Your task to perform on an android device: Show me productivity apps on the Play Store Image 0: 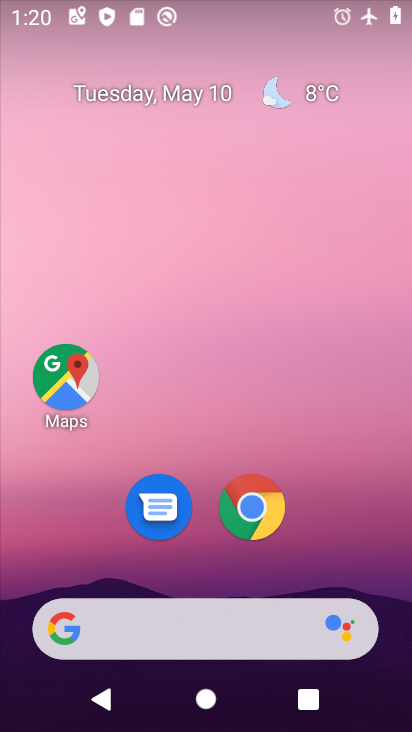
Step 0: drag from (226, 715) to (217, 119)
Your task to perform on an android device: Show me productivity apps on the Play Store Image 1: 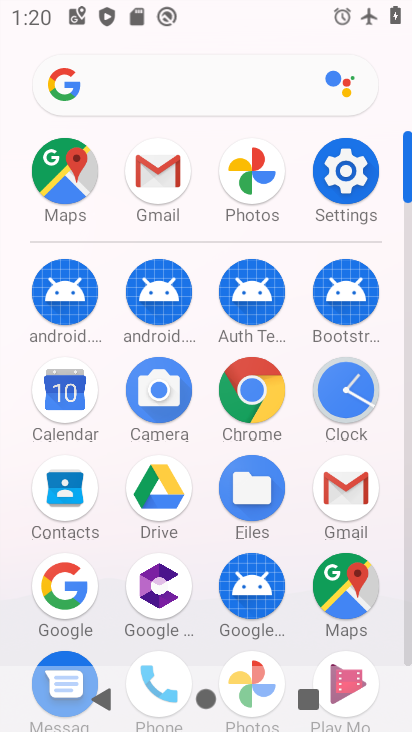
Step 1: drag from (194, 638) to (200, 206)
Your task to perform on an android device: Show me productivity apps on the Play Store Image 2: 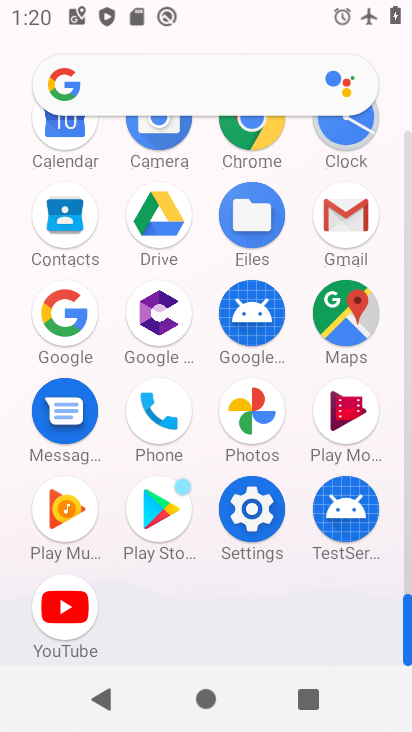
Step 2: click (162, 511)
Your task to perform on an android device: Show me productivity apps on the Play Store Image 3: 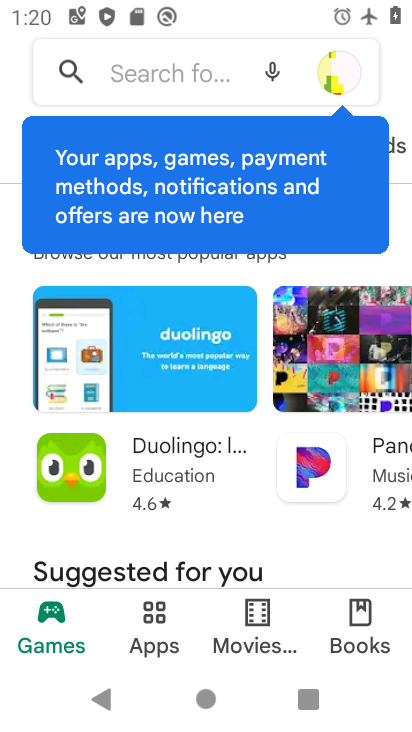
Step 3: click (155, 625)
Your task to perform on an android device: Show me productivity apps on the Play Store Image 4: 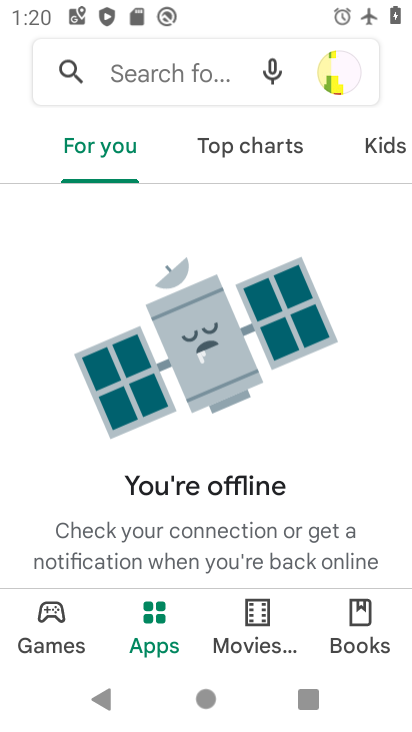
Step 4: drag from (380, 147) to (161, 156)
Your task to perform on an android device: Show me productivity apps on the Play Store Image 5: 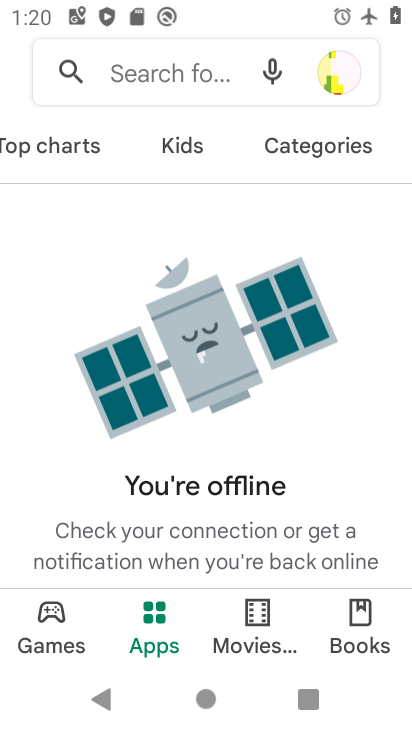
Step 5: click (307, 147)
Your task to perform on an android device: Show me productivity apps on the Play Store Image 6: 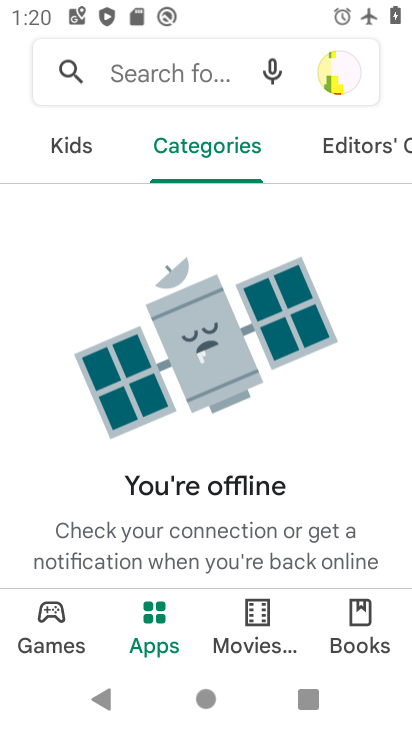
Step 6: task complete